Your task to perform on an android device: clear history in the chrome app Image 0: 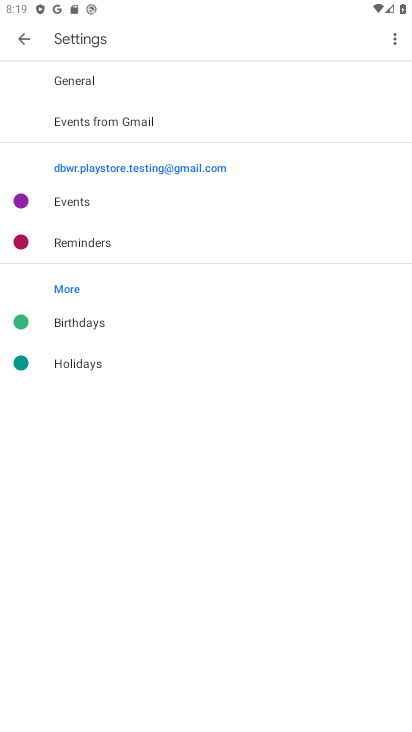
Step 0: press home button
Your task to perform on an android device: clear history in the chrome app Image 1: 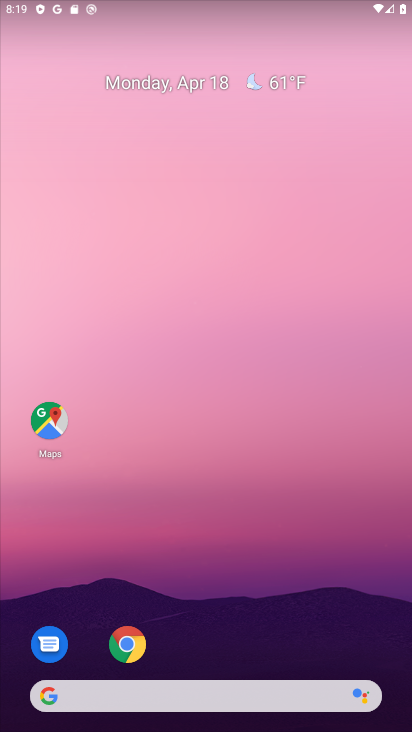
Step 1: drag from (190, 693) to (185, 321)
Your task to perform on an android device: clear history in the chrome app Image 2: 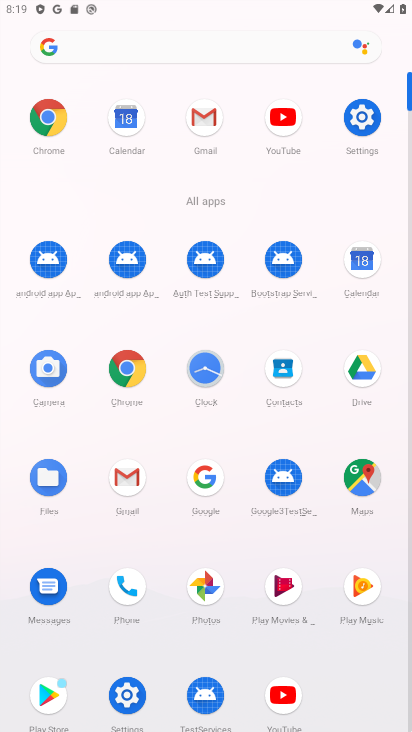
Step 2: click (56, 132)
Your task to perform on an android device: clear history in the chrome app Image 3: 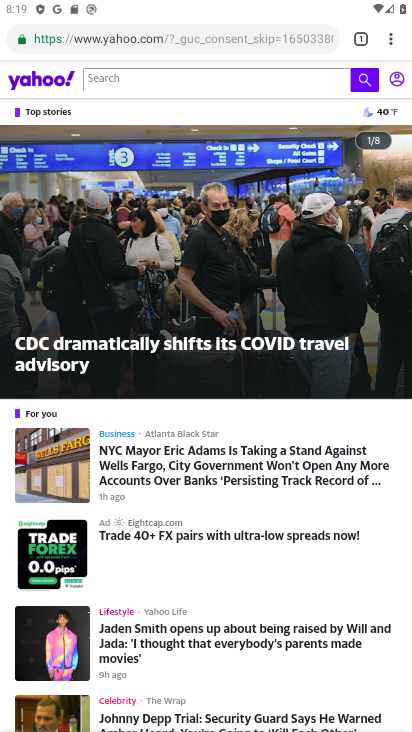
Step 3: click (391, 44)
Your task to perform on an android device: clear history in the chrome app Image 4: 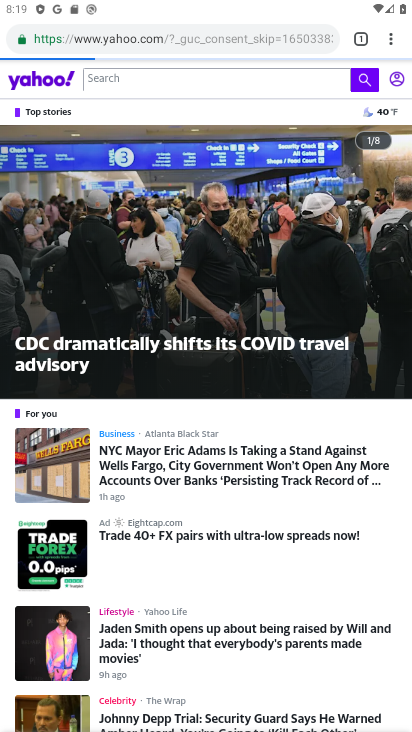
Step 4: drag from (391, 44) to (281, 218)
Your task to perform on an android device: clear history in the chrome app Image 5: 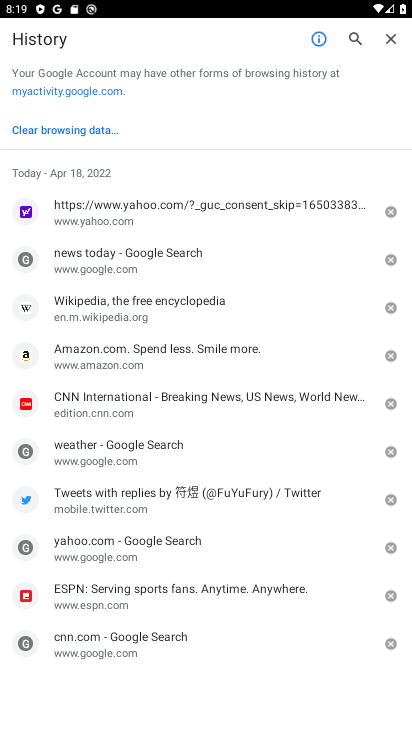
Step 5: click (57, 136)
Your task to perform on an android device: clear history in the chrome app Image 6: 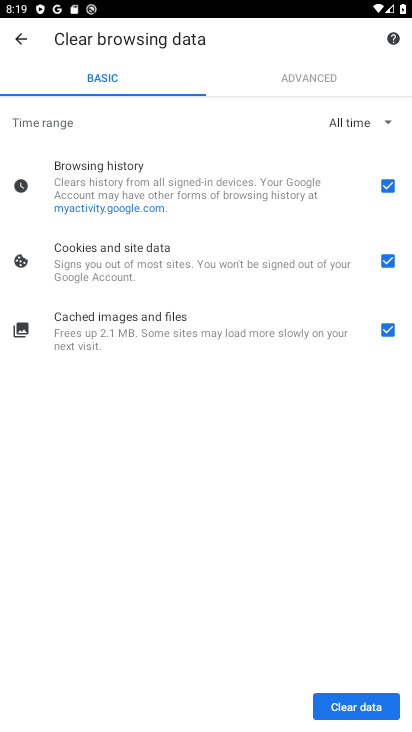
Step 6: click (350, 706)
Your task to perform on an android device: clear history in the chrome app Image 7: 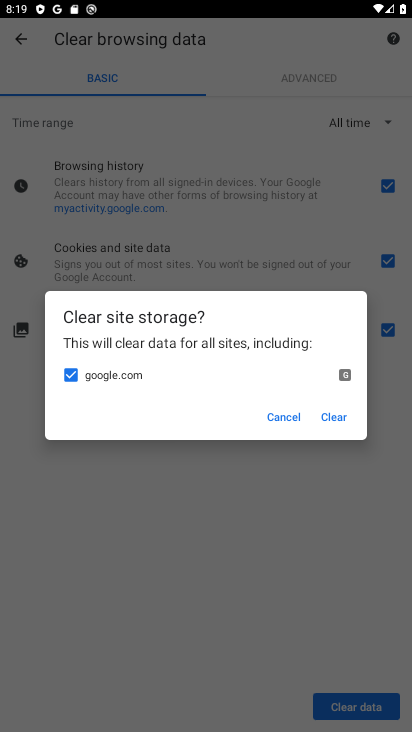
Step 7: click (331, 420)
Your task to perform on an android device: clear history in the chrome app Image 8: 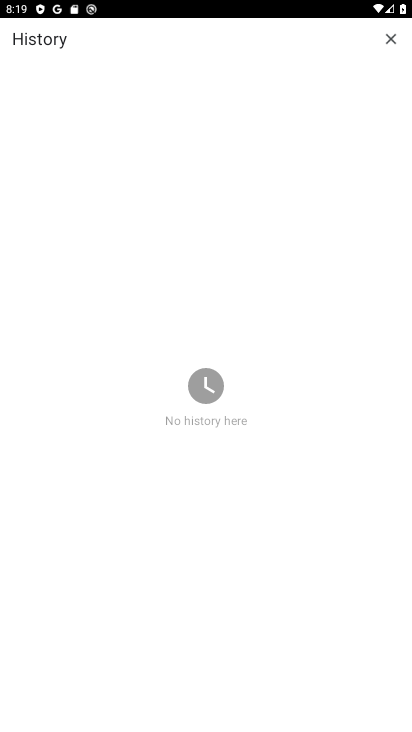
Step 8: task complete